Your task to perform on an android device: move an email to a new category in the gmail app Image 0: 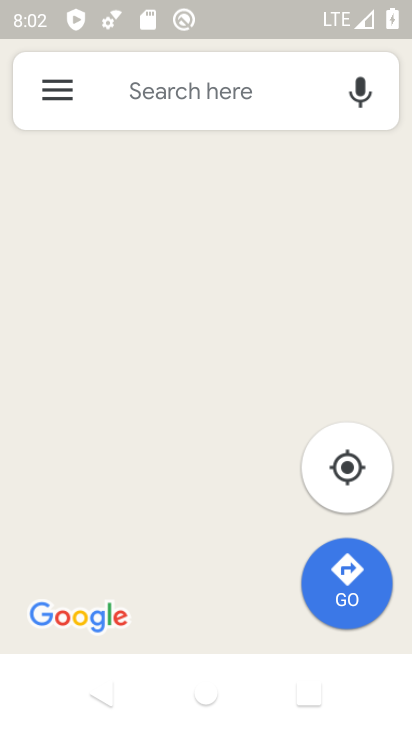
Step 0: drag from (212, 547) to (253, 187)
Your task to perform on an android device: move an email to a new category in the gmail app Image 1: 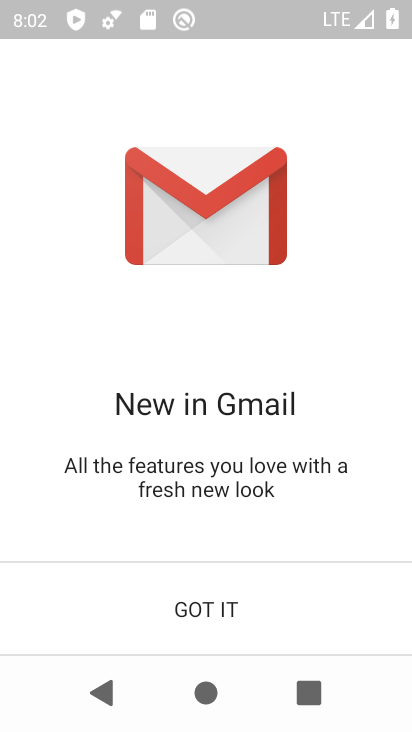
Step 1: press home button
Your task to perform on an android device: move an email to a new category in the gmail app Image 2: 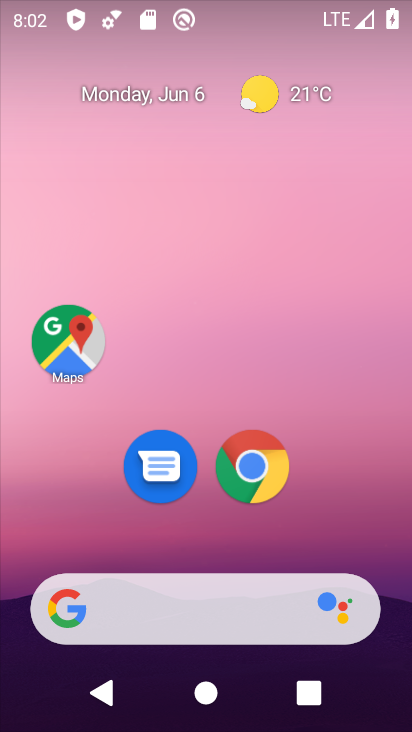
Step 2: drag from (203, 543) to (220, 313)
Your task to perform on an android device: move an email to a new category in the gmail app Image 3: 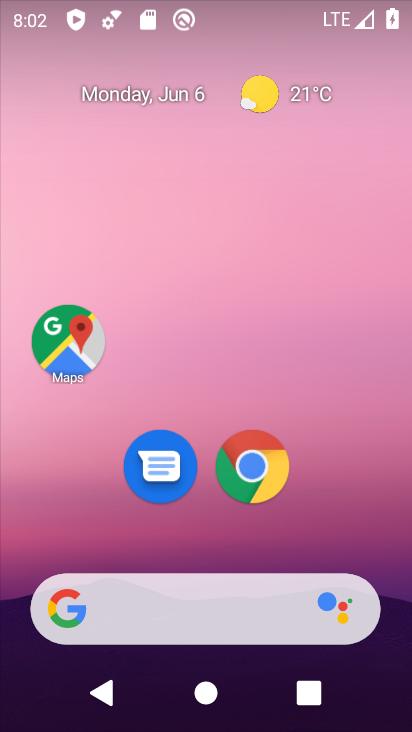
Step 3: drag from (195, 546) to (204, 250)
Your task to perform on an android device: move an email to a new category in the gmail app Image 4: 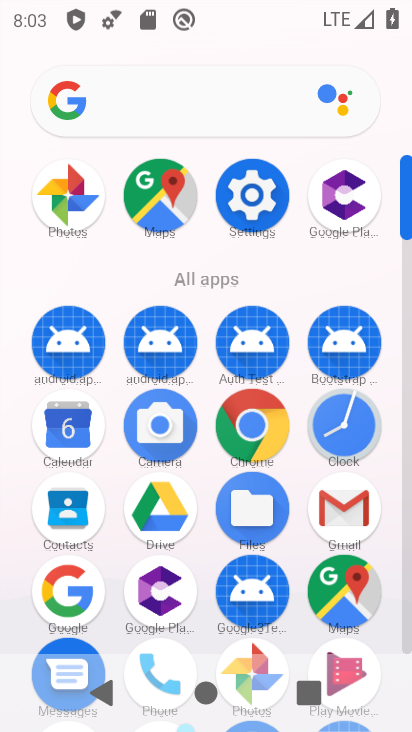
Step 4: click (337, 511)
Your task to perform on an android device: move an email to a new category in the gmail app Image 5: 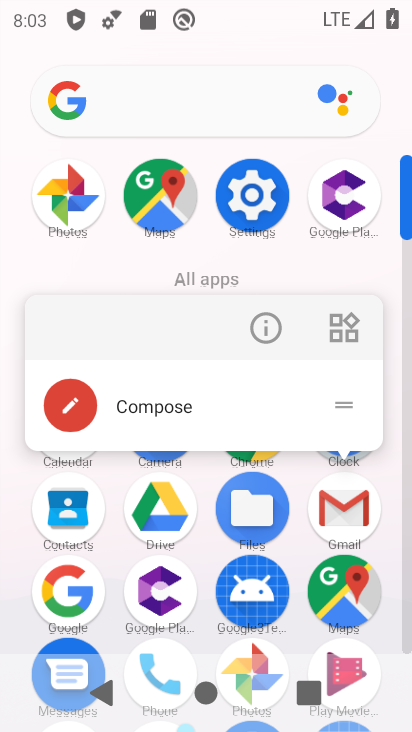
Step 5: click (249, 337)
Your task to perform on an android device: move an email to a new category in the gmail app Image 6: 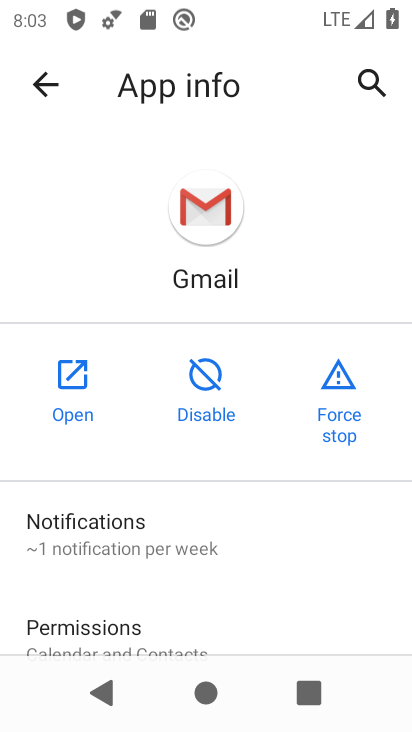
Step 6: click (84, 418)
Your task to perform on an android device: move an email to a new category in the gmail app Image 7: 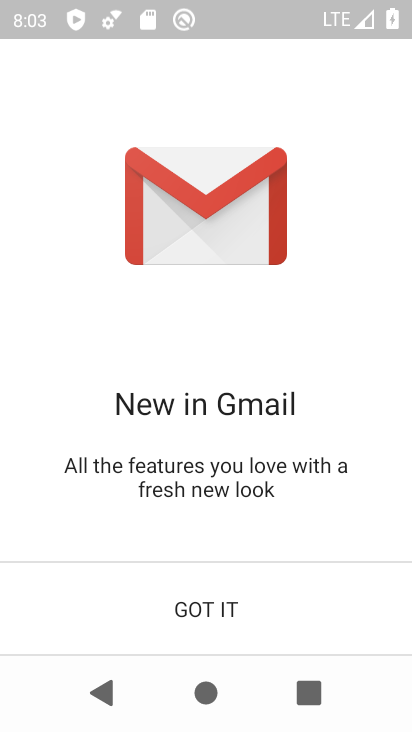
Step 7: click (231, 606)
Your task to perform on an android device: move an email to a new category in the gmail app Image 8: 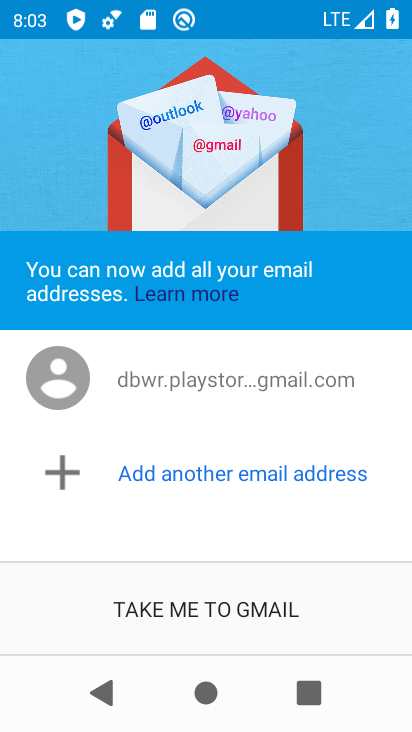
Step 8: click (194, 607)
Your task to perform on an android device: move an email to a new category in the gmail app Image 9: 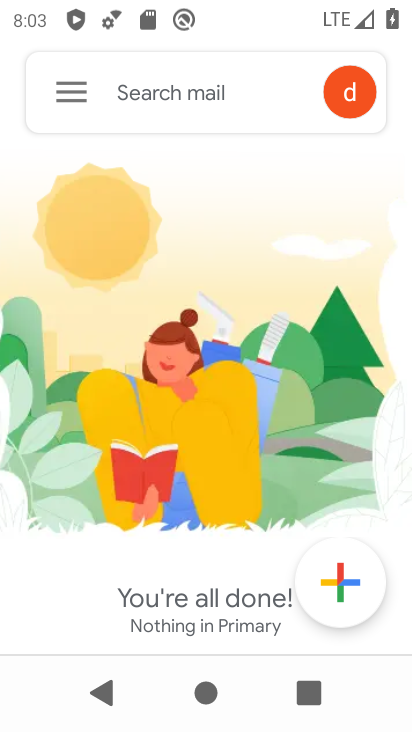
Step 9: task complete